Your task to perform on an android device: change the clock style Image 0: 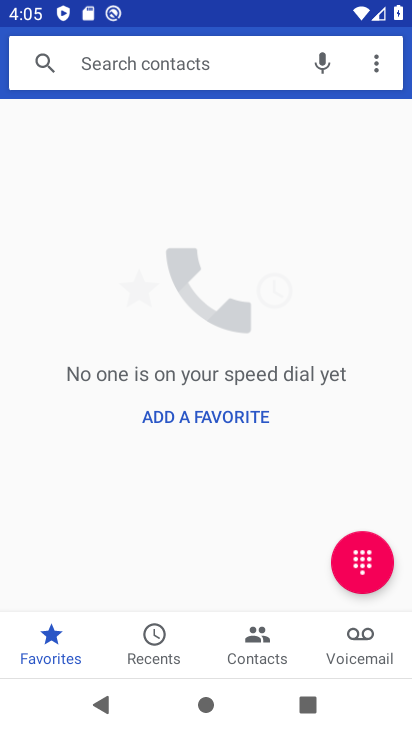
Step 0: press home button
Your task to perform on an android device: change the clock style Image 1: 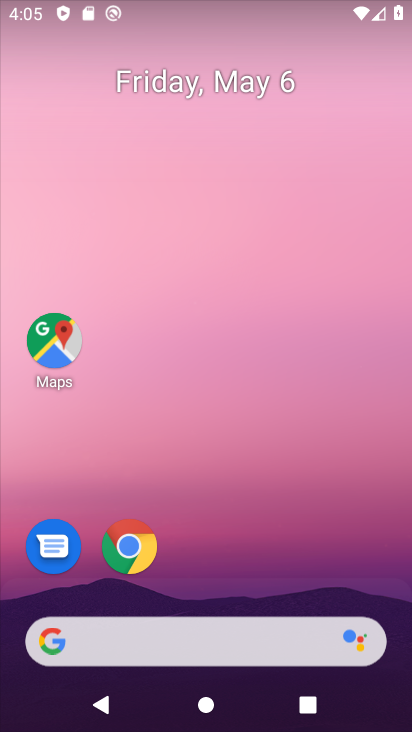
Step 1: drag from (262, 591) to (281, 64)
Your task to perform on an android device: change the clock style Image 2: 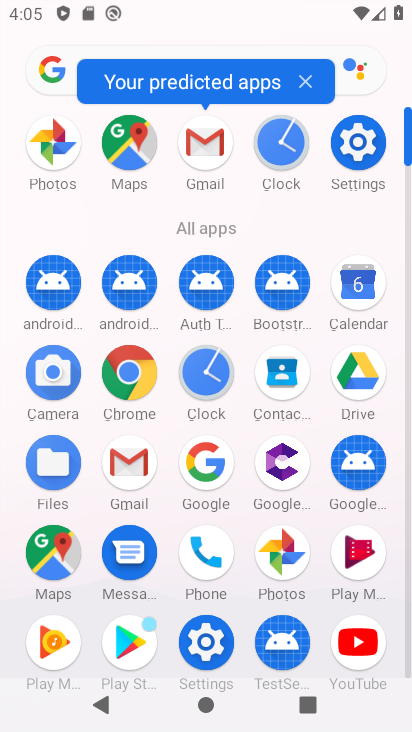
Step 2: click (293, 154)
Your task to perform on an android device: change the clock style Image 3: 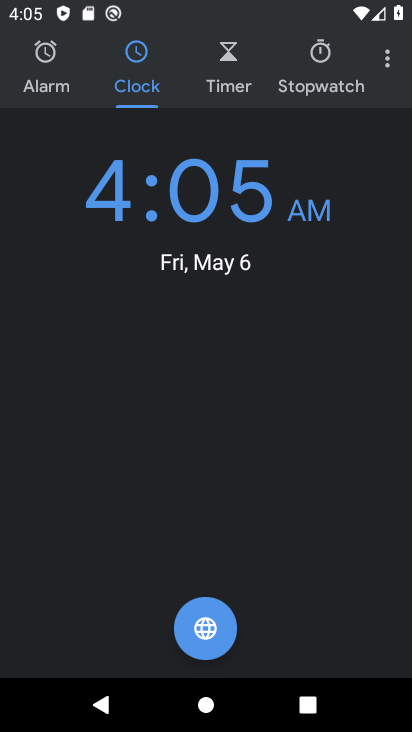
Step 3: click (386, 72)
Your task to perform on an android device: change the clock style Image 4: 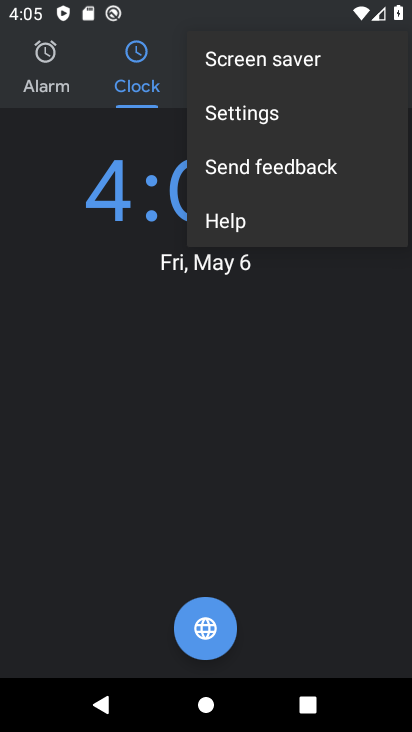
Step 4: click (255, 114)
Your task to perform on an android device: change the clock style Image 5: 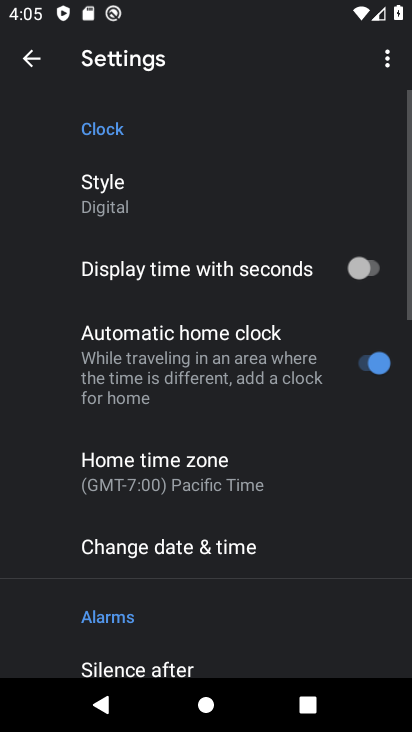
Step 5: click (126, 179)
Your task to perform on an android device: change the clock style Image 6: 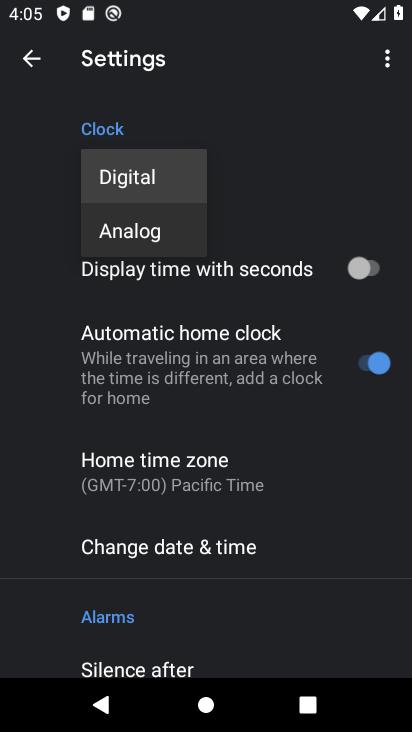
Step 6: click (133, 220)
Your task to perform on an android device: change the clock style Image 7: 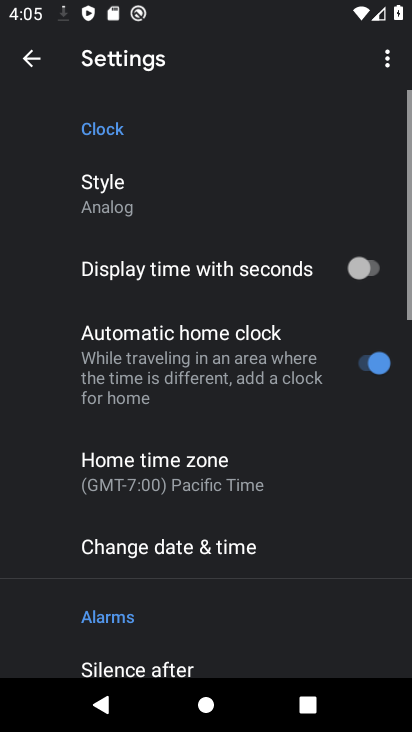
Step 7: task complete